Your task to perform on an android device: visit the assistant section in the google photos Image 0: 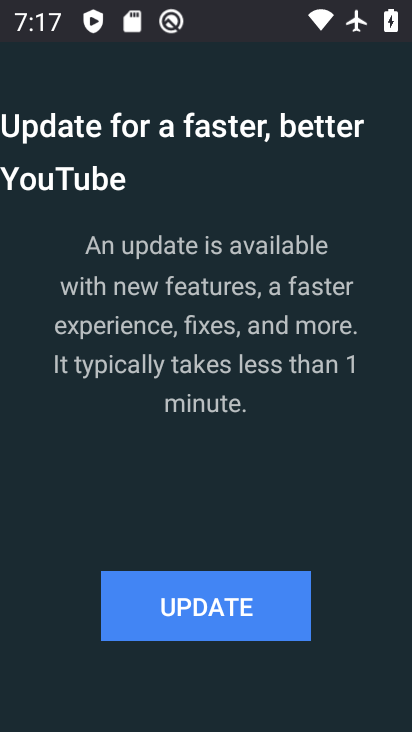
Step 0: press home button
Your task to perform on an android device: visit the assistant section in the google photos Image 1: 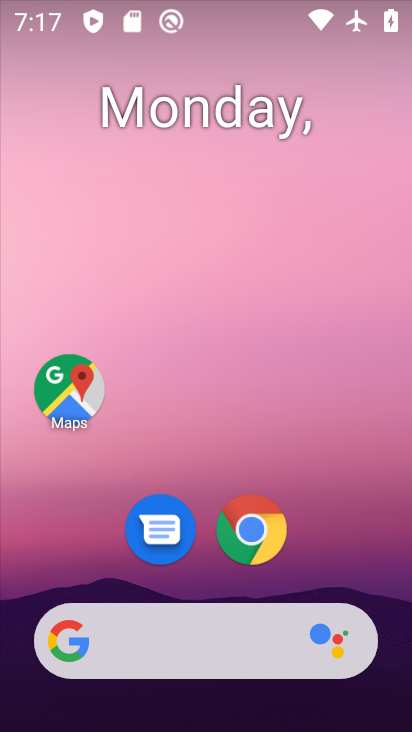
Step 1: drag from (319, 507) to (245, 8)
Your task to perform on an android device: visit the assistant section in the google photos Image 2: 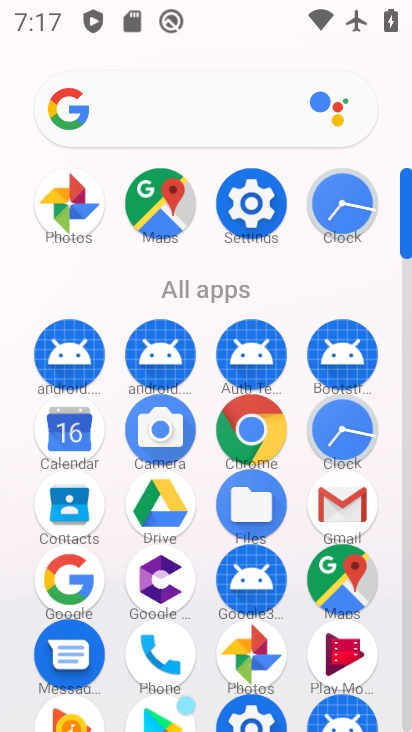
Step 2: click (56, 205)
Your task to perform on an android device: visit the assistant section in the google photos Image 3: 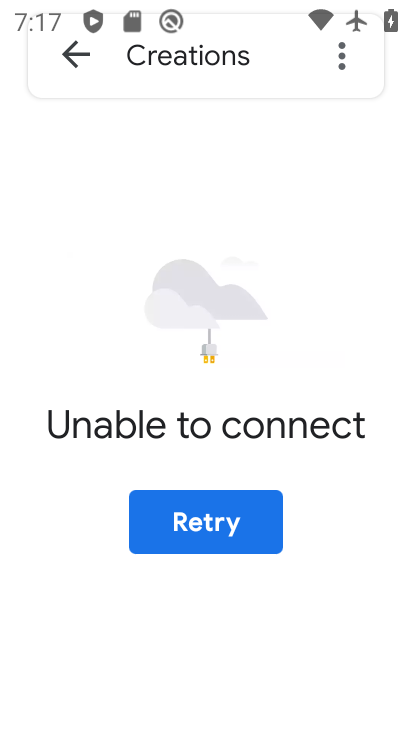
Step 3: click (199, 521)
Your task to perform on an android device: visit the assistant section in the google photos Image 4: 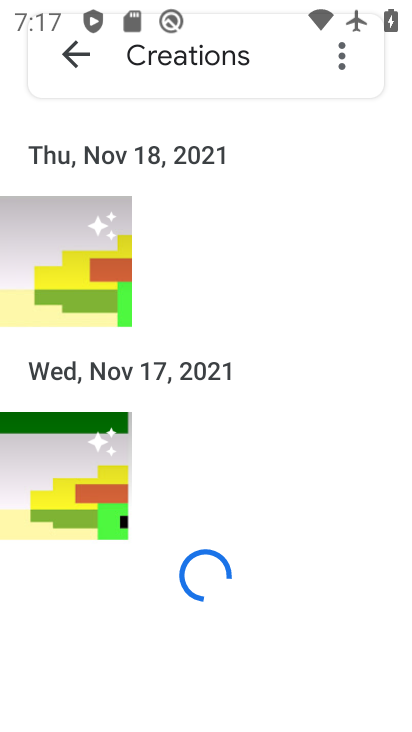
Step 4: click (73, 45)
Your task to perform on an android device: visit the assistant section in the google photos Image 5: 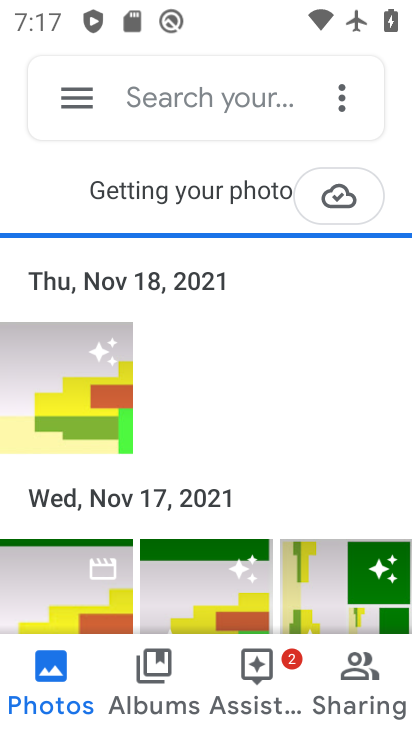
Step 5: click (253, 665)
Your task to perform on an android device: visit the assistant section in the google photos Image 6: 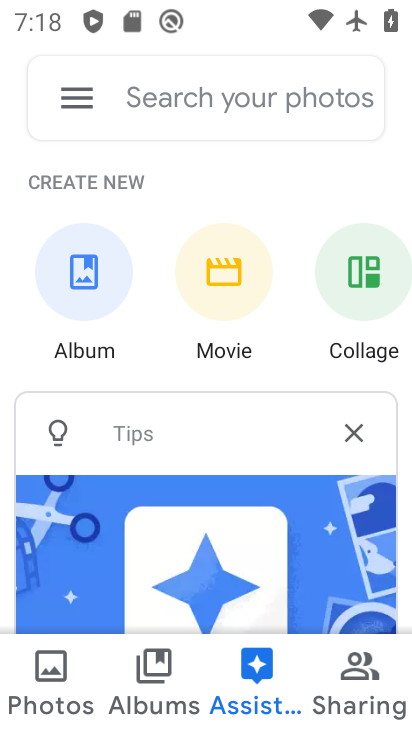
Step 6: task complete